Your task to perform on an android device: What's the weather going to be this weekend? Image 0: 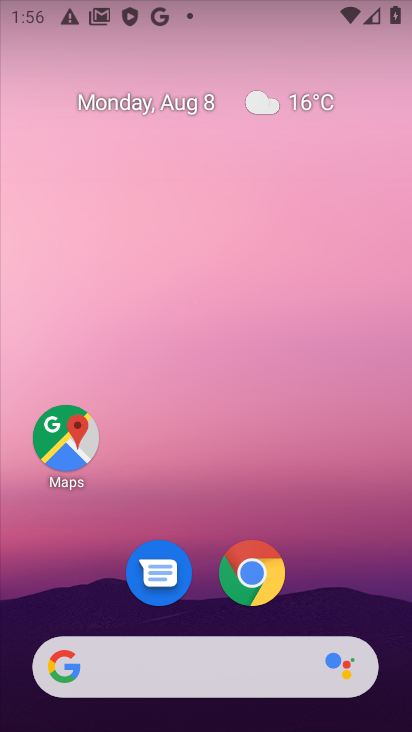
Step 0: drag from (202, 684) to (294, 86)
Your task to perform on an android device: What's the weather going to be this weekend? Image 1: 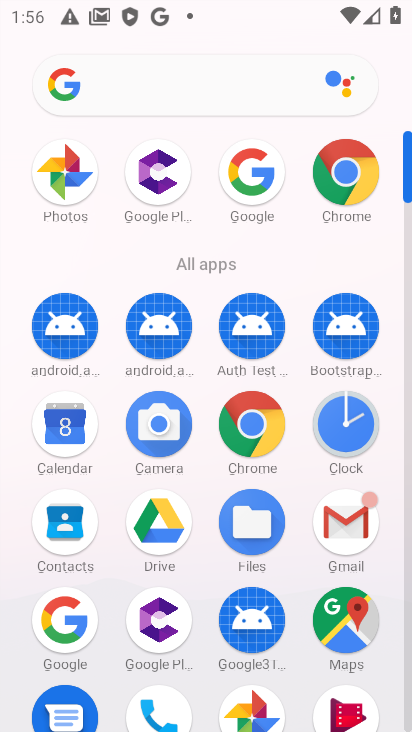
Step 1: click (249, 174)
Your task to perform on an android device: What's the weather going to be this weekend? Image 2: 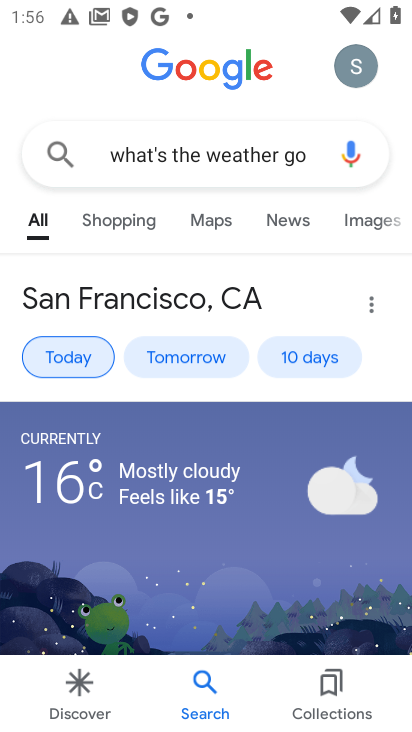
Step 2: click (306, 153)
Your task to perform on an android device: What's the weather going to be this weekend? Image 3: 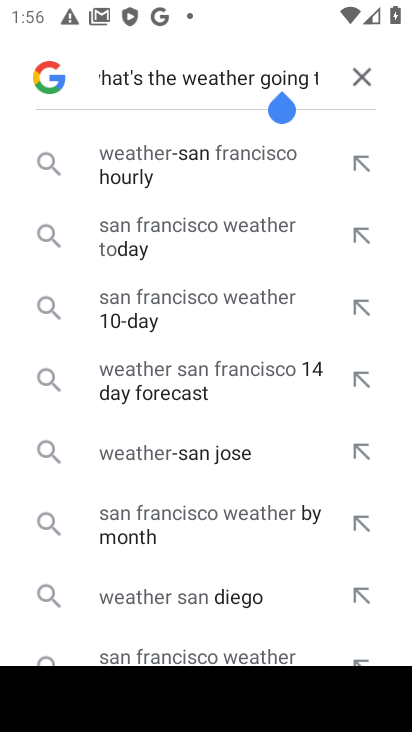
Step 3: click (355, 79)
Your task to perform on an android device: What's the weather going to be this weekend? Image 4: 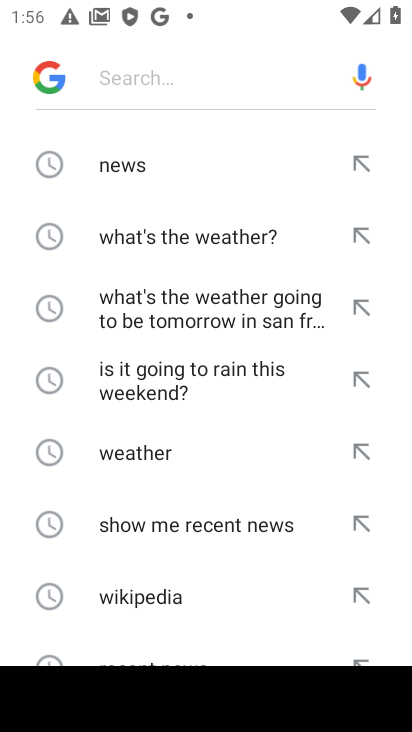
Step 4: type "What's the weather going to be this weekend?"
Your task to perform on an android device: What's the weather going to be this weekend? Image 5: 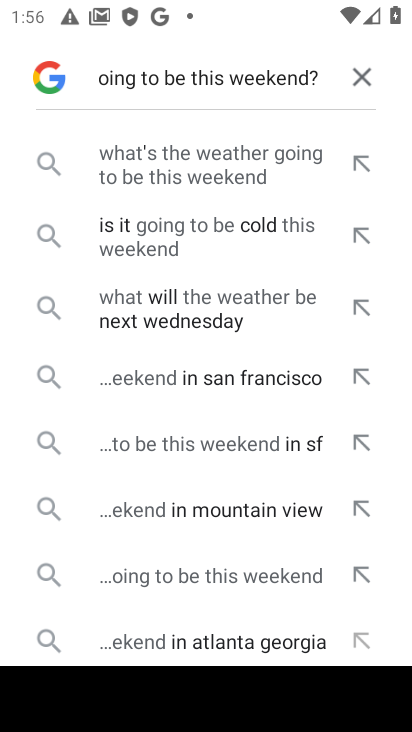
Step 5: click (238, 172)
Your task to perform on an android device: What's the weather going to be this weekend? Image 6: 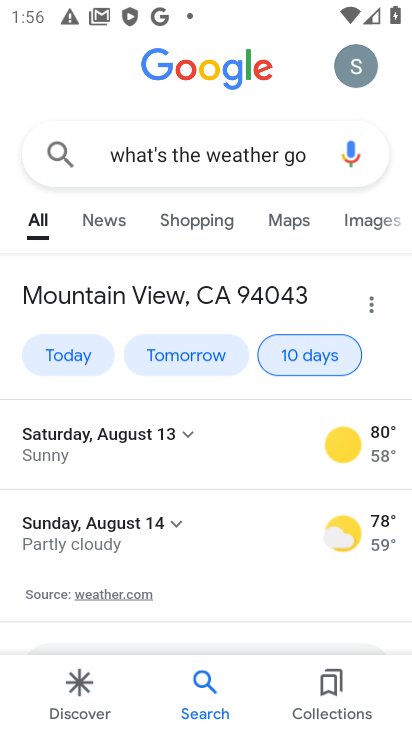
Step 6: task complete